Your task to perform on an android device: open chrome privacy settings Image 0: 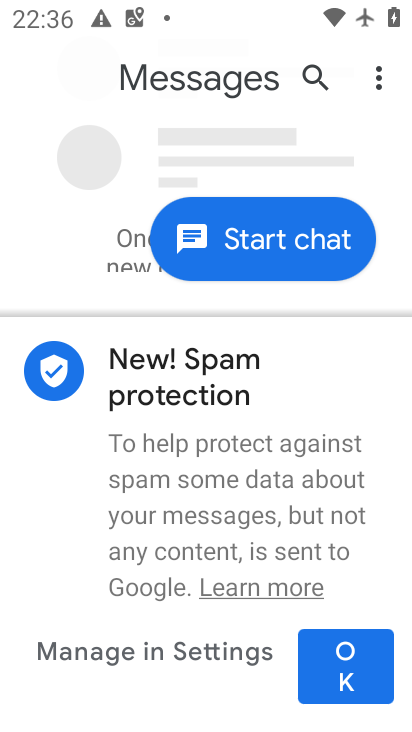
Step 0: press home button
Your task to perform on an android device: open chrome privacy settings Image 1: 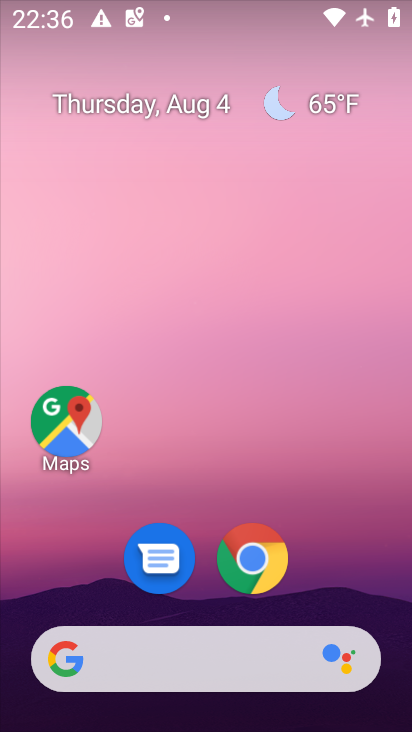
Step 1: drag from (349, 572) to (273, 92)
Your task to perform on an android device: open chrome privacy settings Image 2: 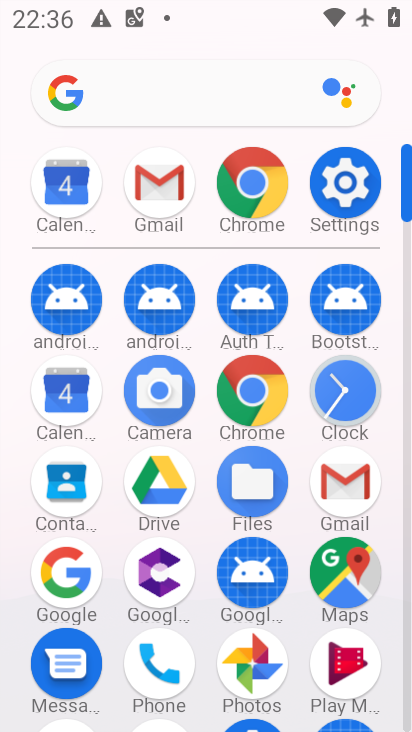
Step 2: click (258, 394)
Your task to perform on an android device: open chrome privacy settings Image 3: 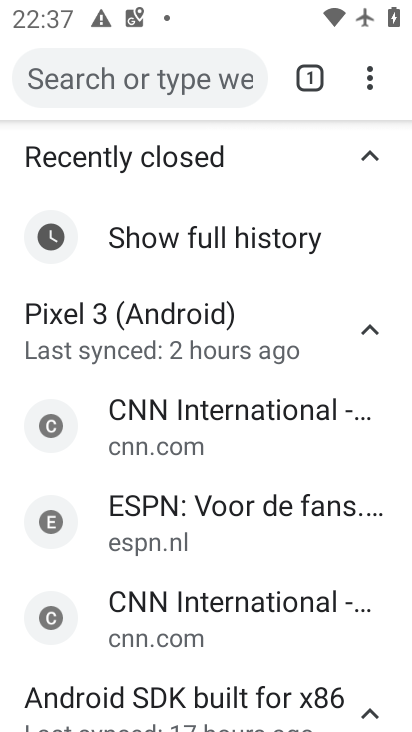
Step 3: drag from (369, 85) to (170, 596)
Your task to perform on an android device: open chrome privacy settings Image 4: 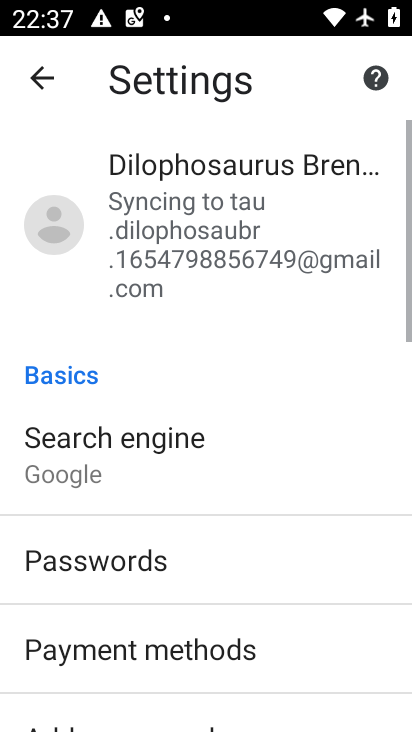
Step 4: drag from (193, 572) to (289, 178)
Your task to perform on an android device: open chrome privacy settings Image 5: 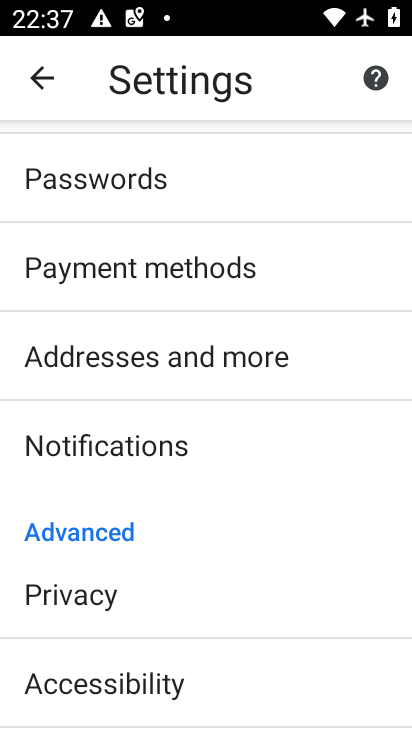
Step 5: click (118, 598)
Your task to perform on an android device: open chrome privacy settings Image 6: 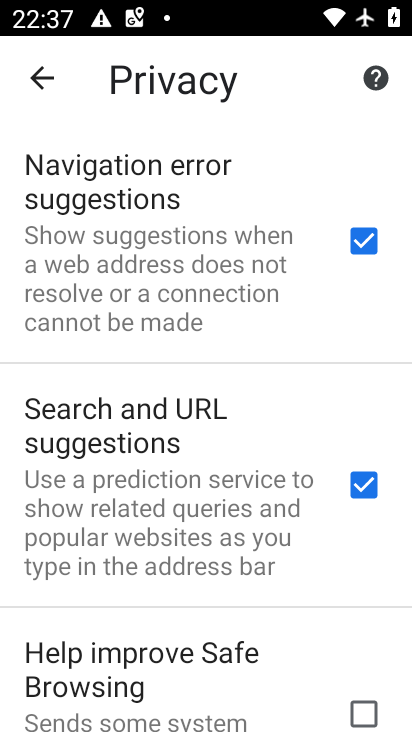
Step 6: task complete